Your task to perform on an android device: check android version Image 0: 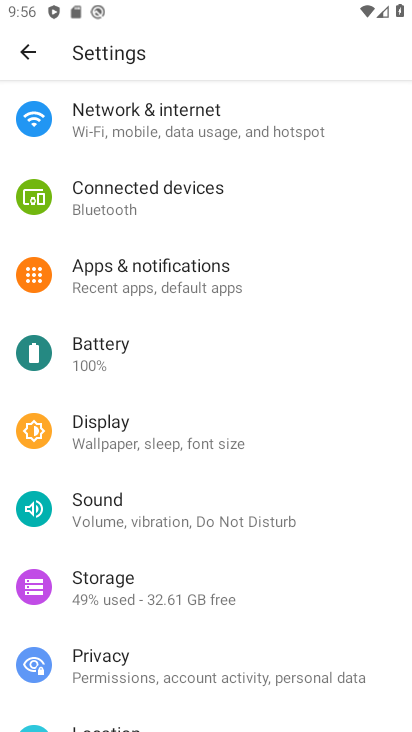
Step 0: task complete